Your task to perform on an android device: toggle translation in the chrome app Image 0: 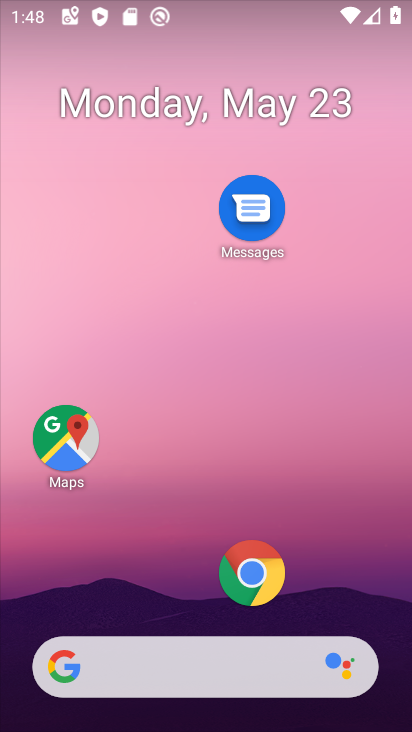
Step 0: drag from (178, 554) to (253, 36)
Your task to perform on an android device: toggle translation in the chrome app Image 1: 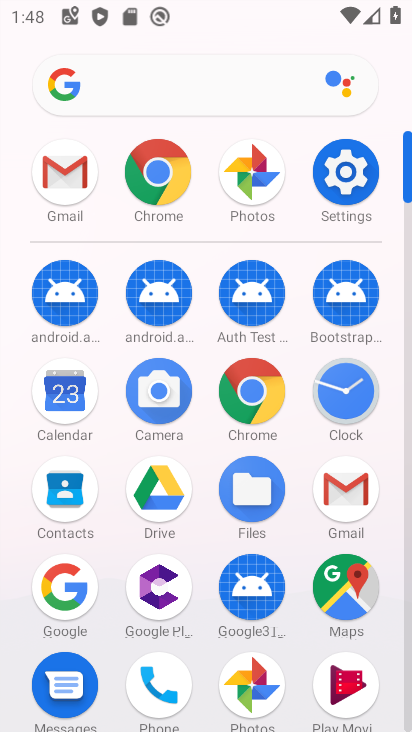
Step 1: click (149, 178)
Your task to perform on an android device: toggle translation in the chrome app Image 2: 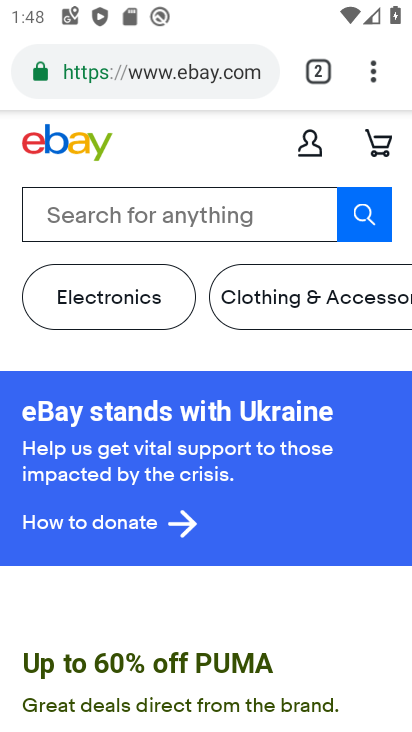
Step 2: click (371, 69)
Your task to perform on an android device: toggle translation in the chrome app Image 3: 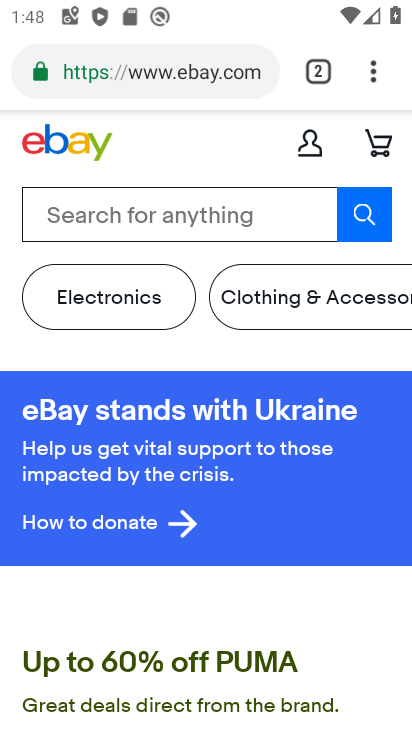
Step 3: click (367, 78)
Your task to perform on an android device: toggle translation in the chrome app Image 4: 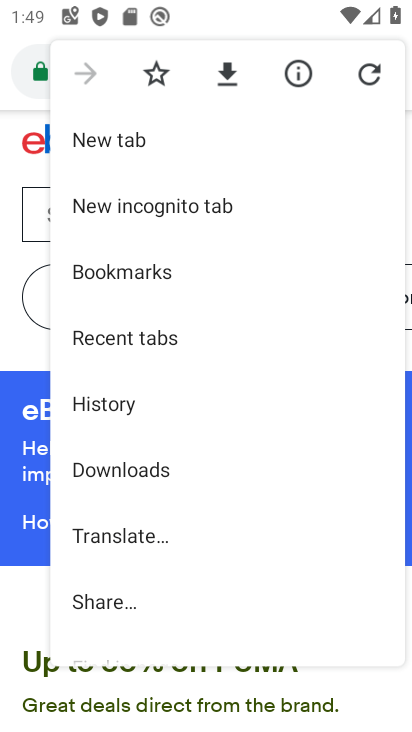
Step 4: click (121, 533)
Your task to perform on an android device: toggle translation in the chrome app Image 5: 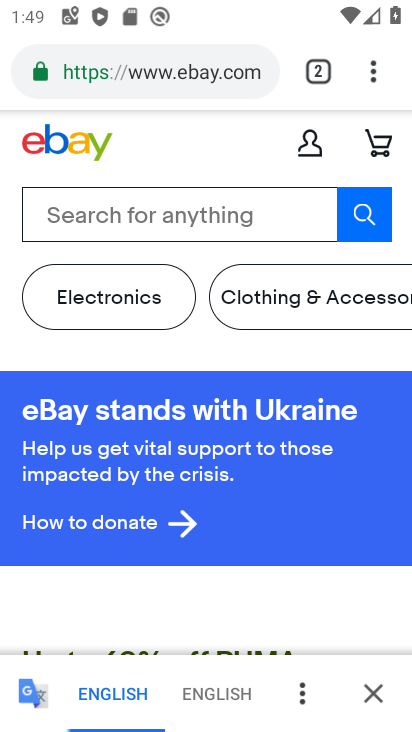
Step 5: click (370, 82)
Your task to perform on an android device: toggle translation in the chrome app Image 6: 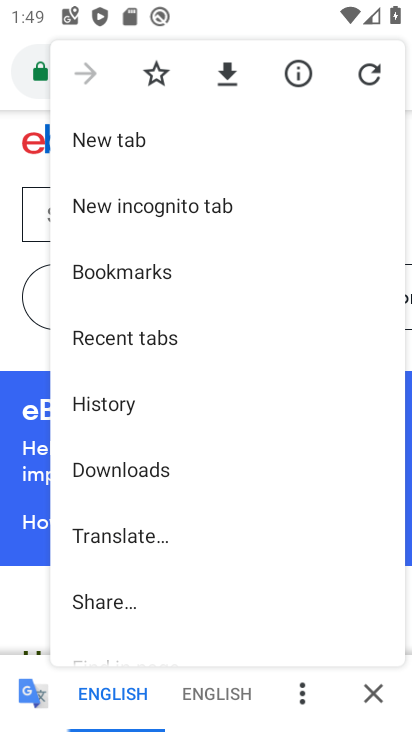
Step 6: click (299, 693)
Your task to perform on an android device: toggle translation in the chrome app Image 7: 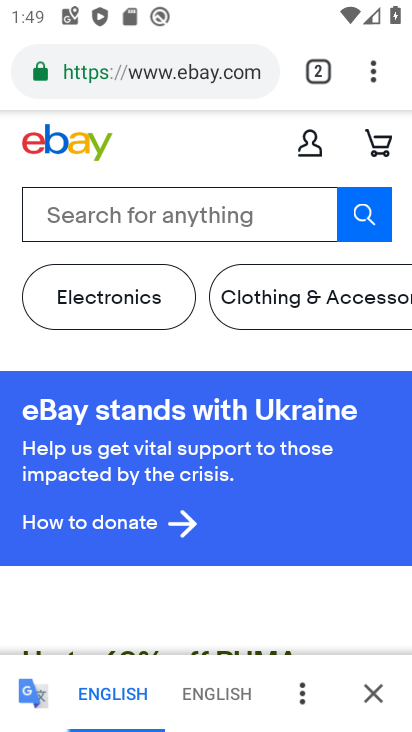
Step 7: click (382, 75)
Your task to perform on an android device: toggle translation in the chrome app Image 8: 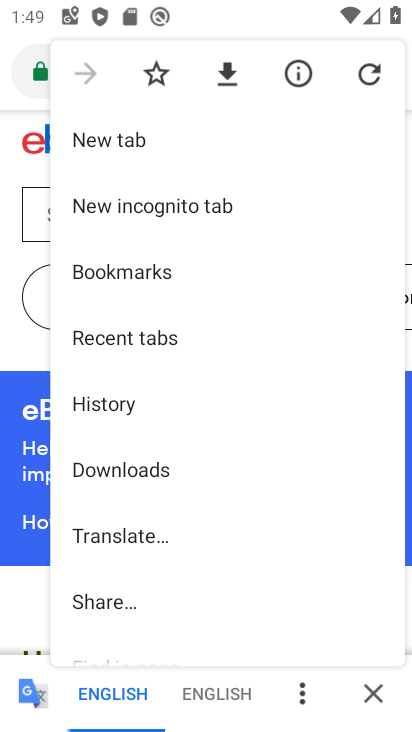
Step 8: drag from (243, 515) to (266, 239)
Your task to perform on an android device: toggle translation in the chrome app Image 9: 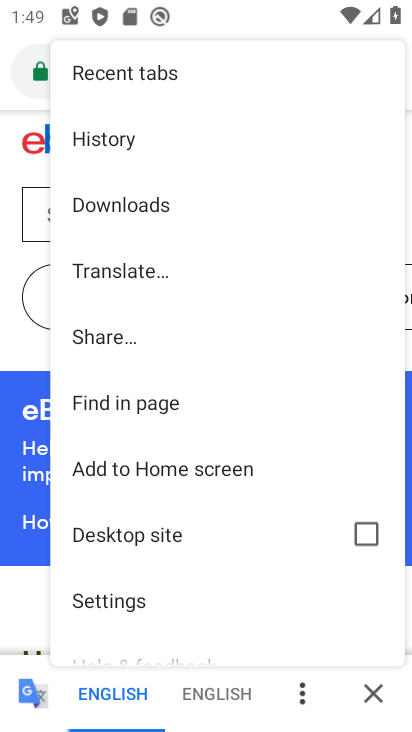
Step 9: drag from (215, 549) to (276, 241)
Your task to perform on an android device: toggle translation in the chrome app Image 10: 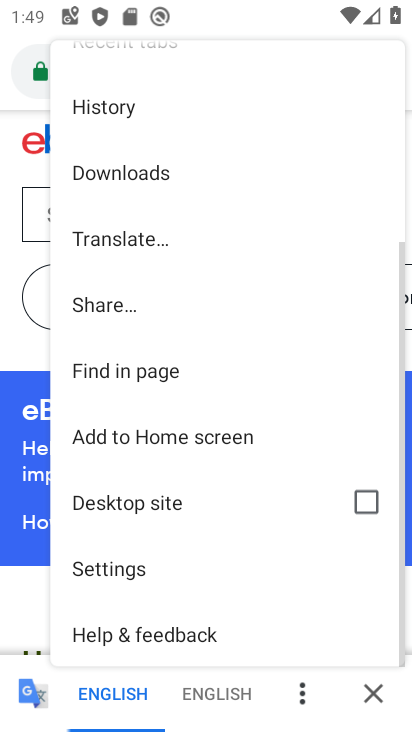
Step 10: click (91, 568)
Your task to perform on an android device: toggle translation in the chrome app Image 11: 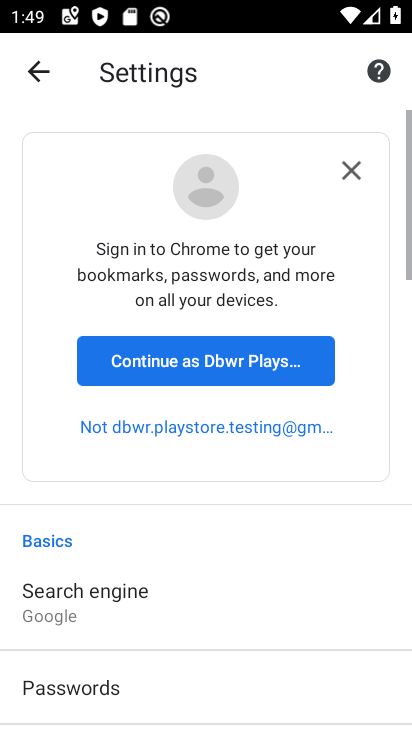
Step 11: drag from (233, 546) to (255, 221)
Your task to perform on an android device: toggle translation in the chrome app Image 12: 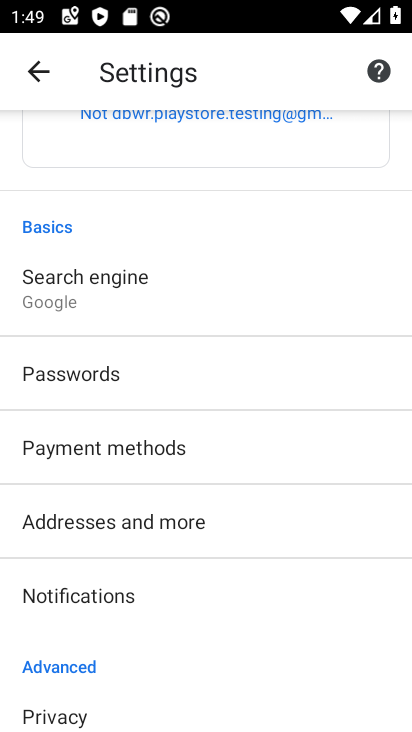
Step 12: drag from (209, 581) to (257, 228)
Your task to perform on an android device: toggle translation in the chrome app Image 13: 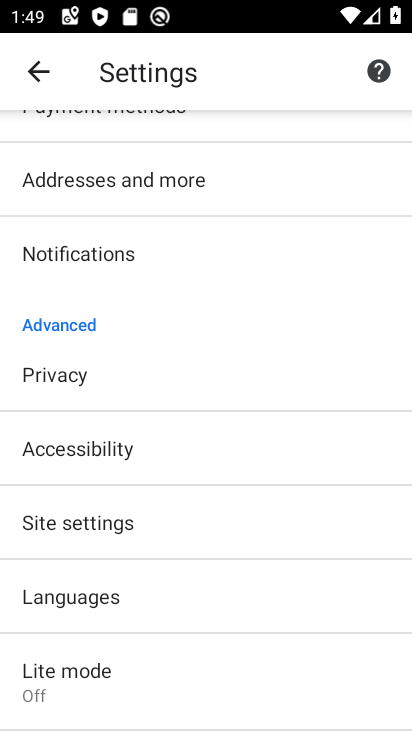
Step 13: click (34, 598)
Your task to perform on an android device: toggle translation in the chrome app Image 14: 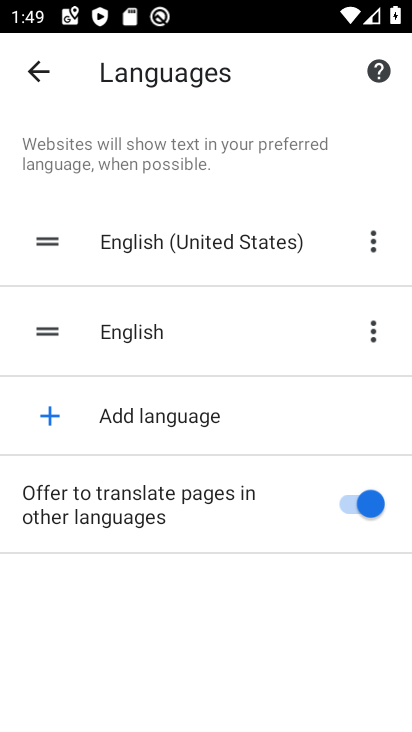
Step 14: click (357, 505)
Your task to perform on an android device: toggle translation in the chrome app Image 15: 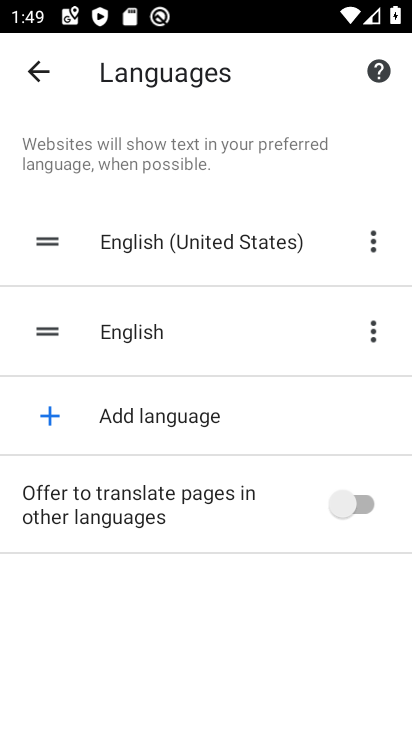
Step 15: task complete